Your task to perform on an android device: Open settings Image 0: 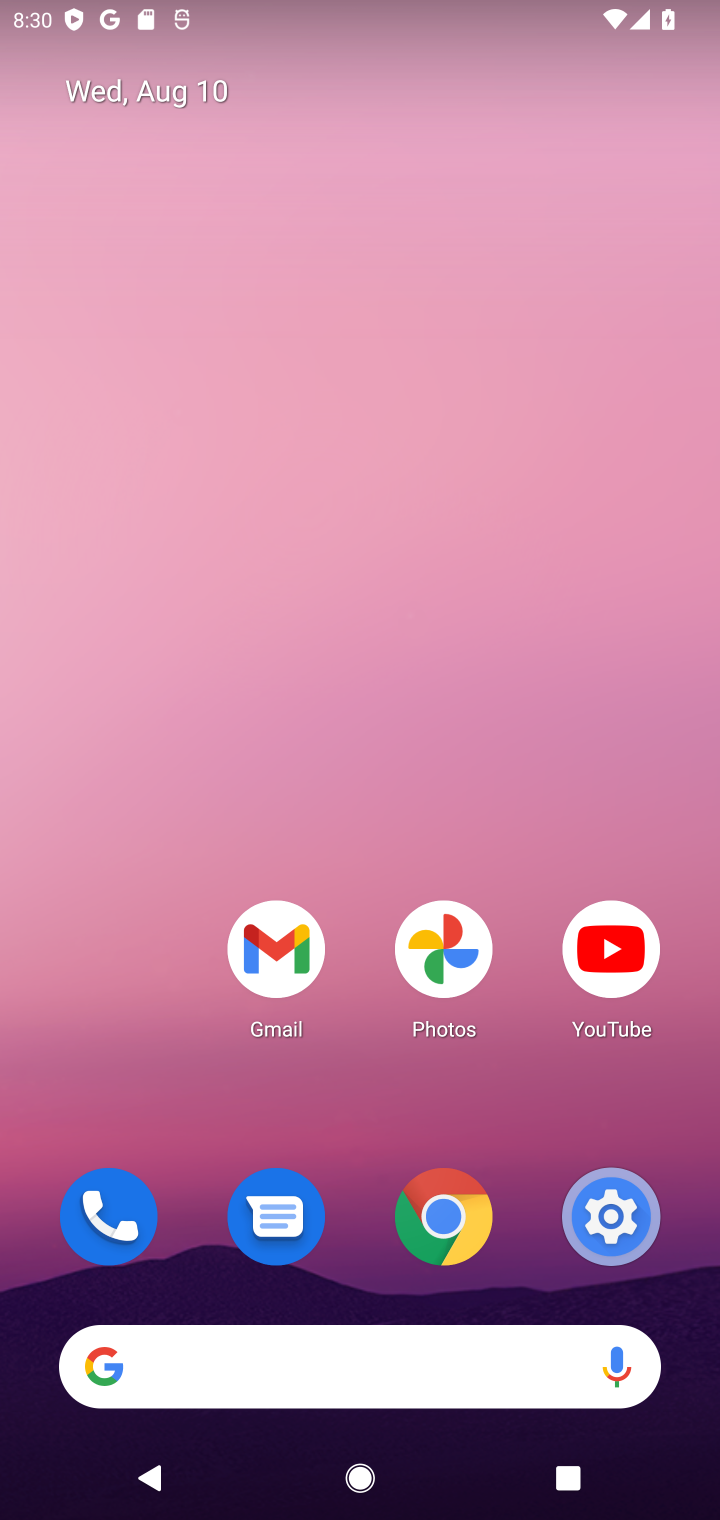
Step 0: click (576, 1229)
Your task to perform on an android device: Open settings Image 1: 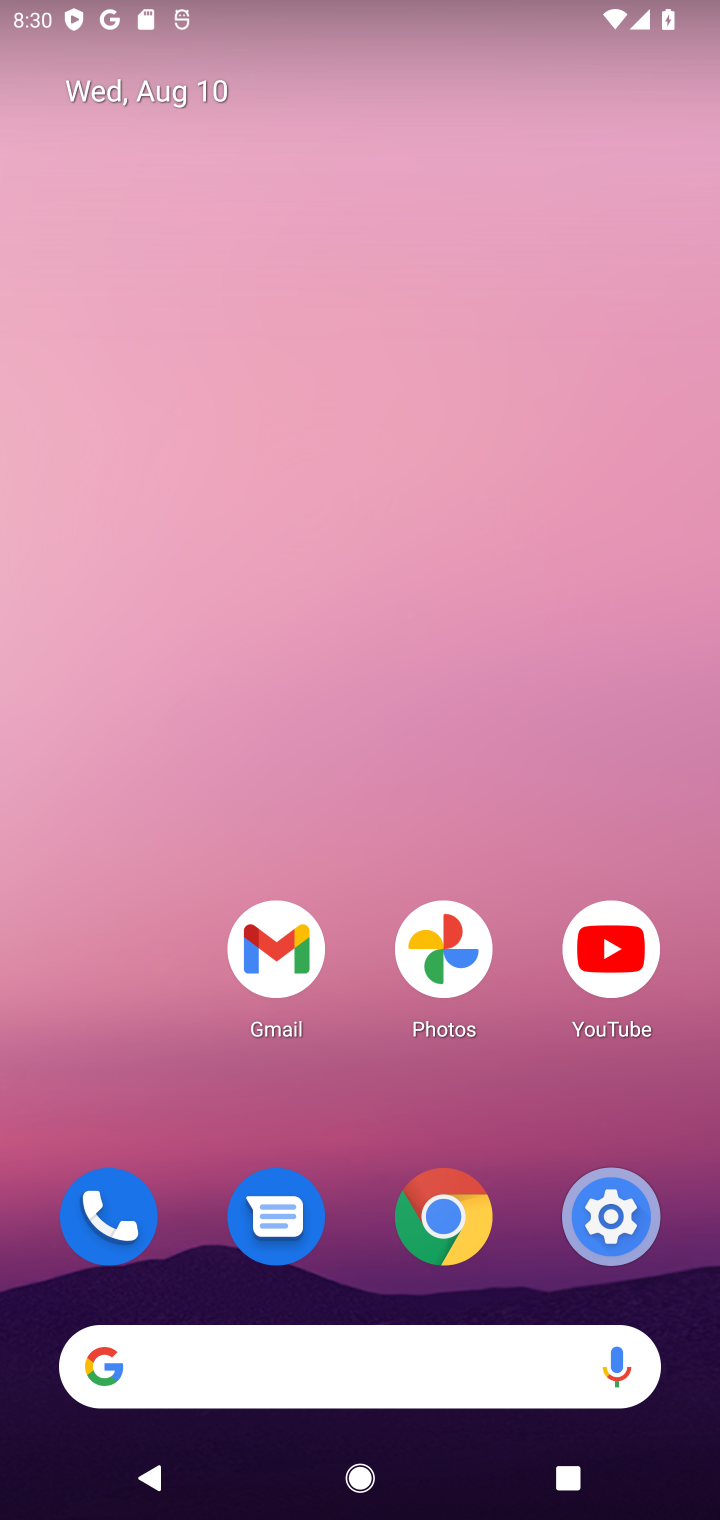
Step 1: click (599, 1210)
Your task to perform on an android device: Open settings Image 2: 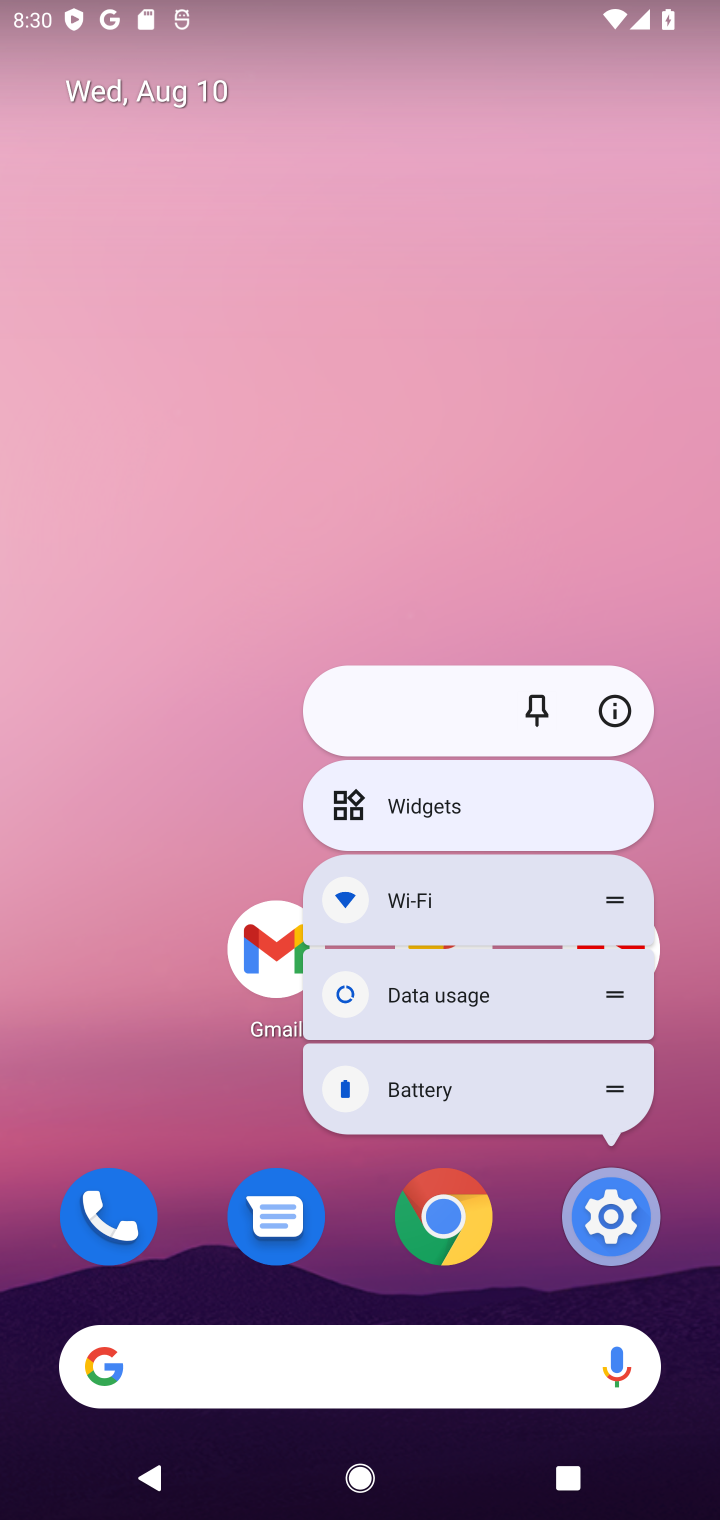
Step 2: click (600, 1200)
Your task to perform on an android device: Open settings Image 3: 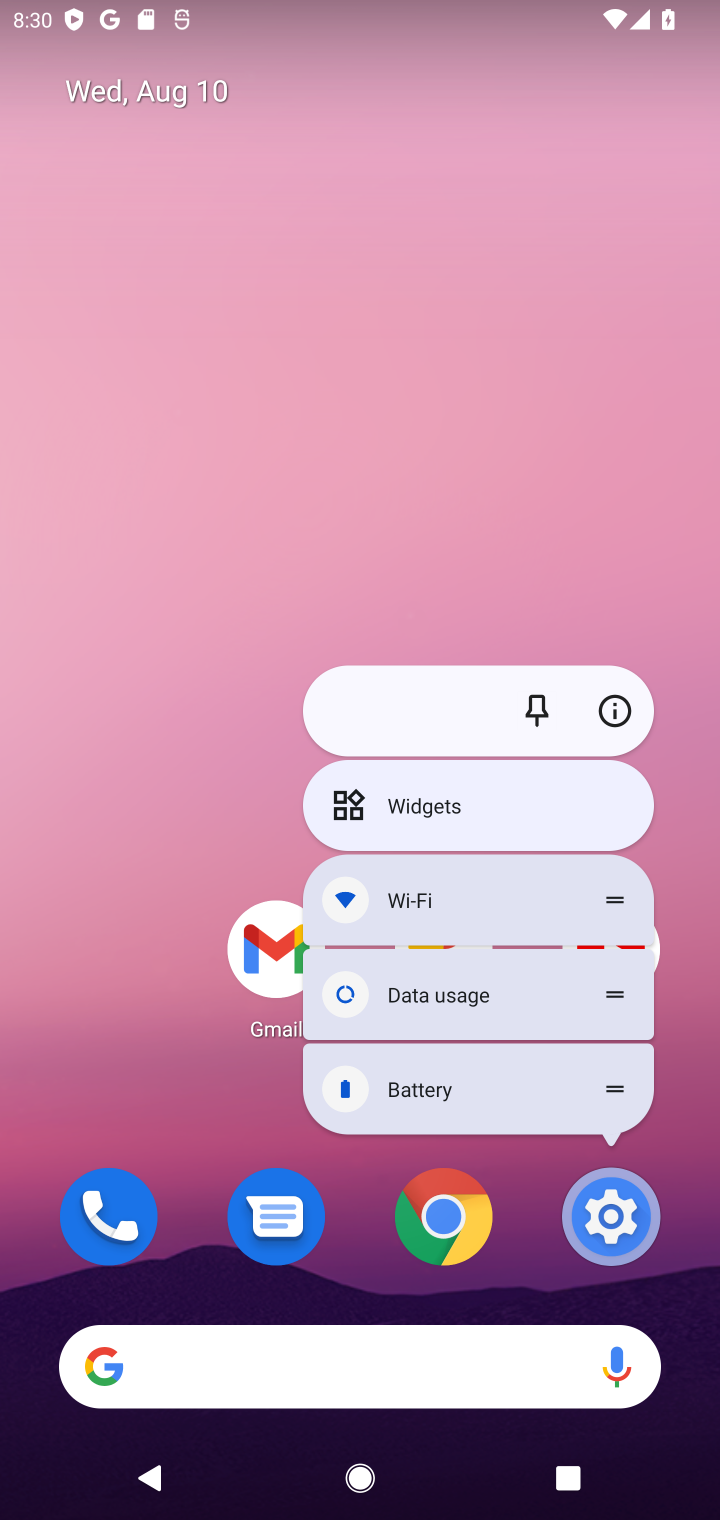
Step 3: click (600, 1196)
Your task to perform on an android device: Open settings Image 4: 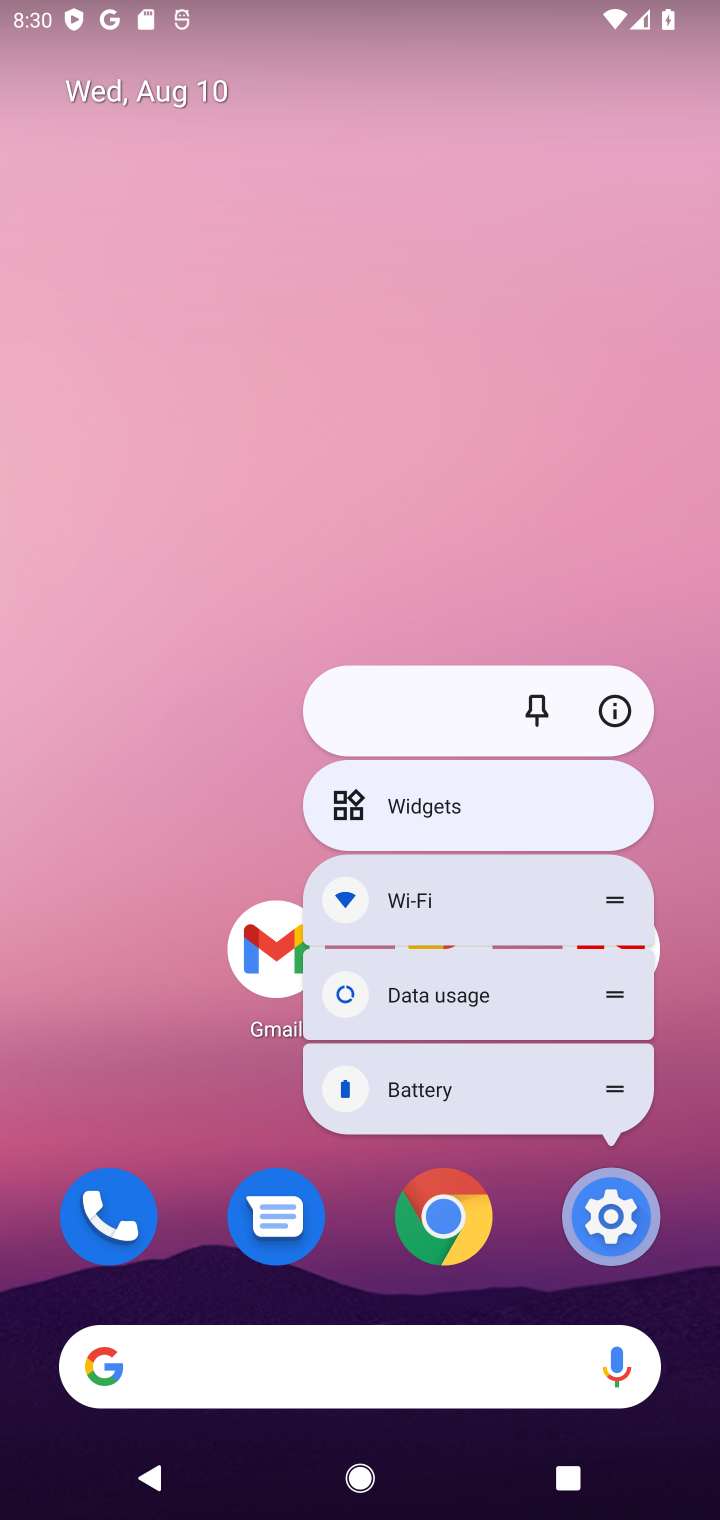
Step 4: click (579, 1247)
Your task to perform on an android device: Open settings Image 5: 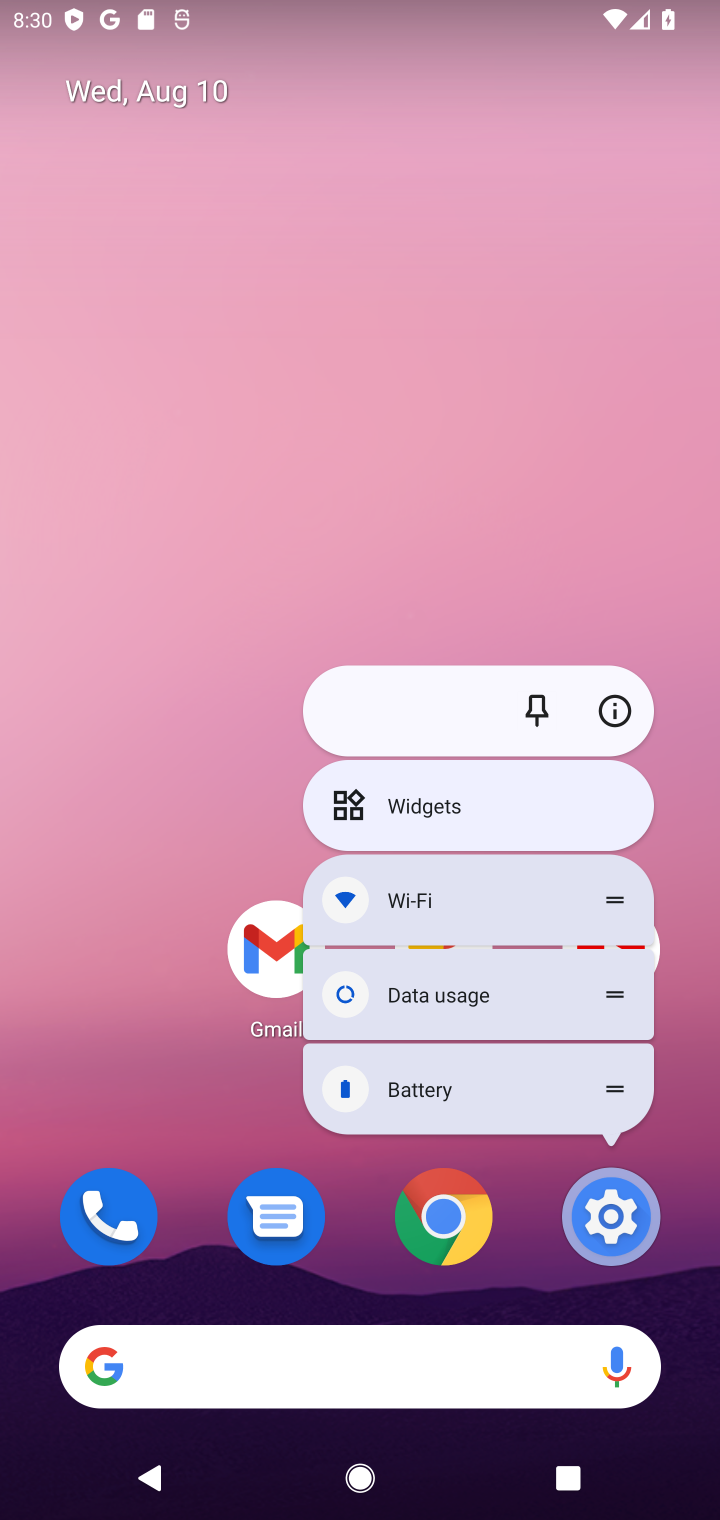
Step 5: drag from (155, 1230) to (655, 318)
Your task to perform on an android device: Open settings Image 6: 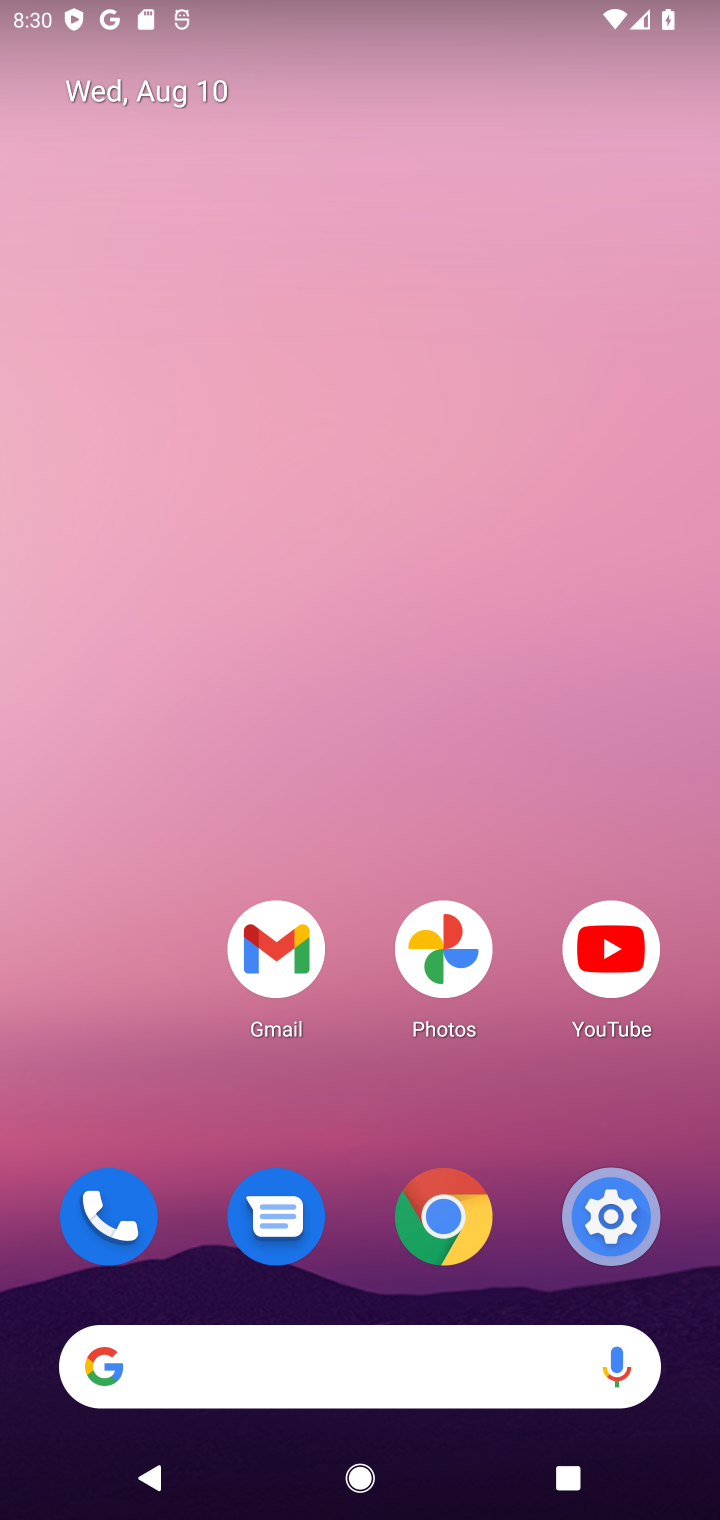
Step 6: drag from (175, 830) to (596, 57)
Your task to perform on an android device: Open settings Image 7: 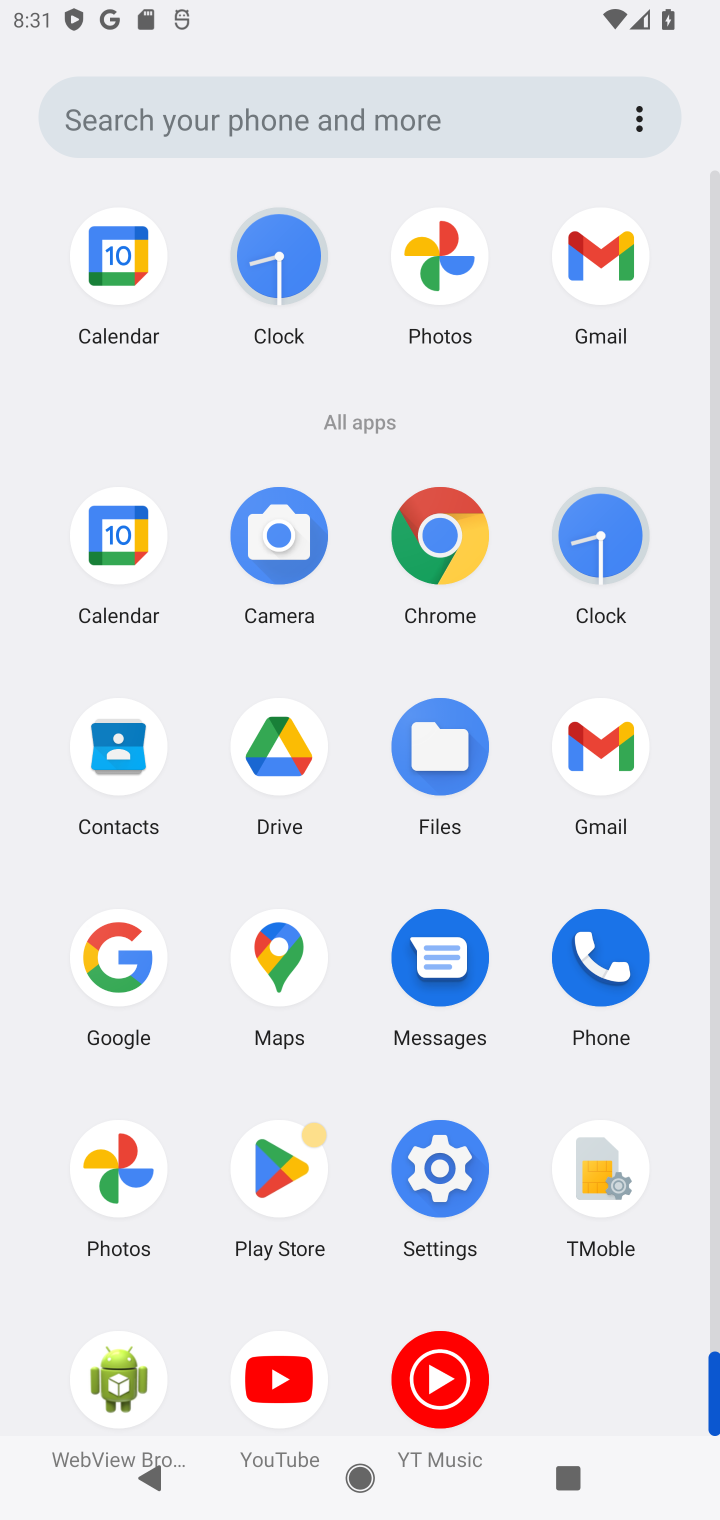
Step 7: click (430, 1150)
Your task to perform on an android device: Open settings Image 8: 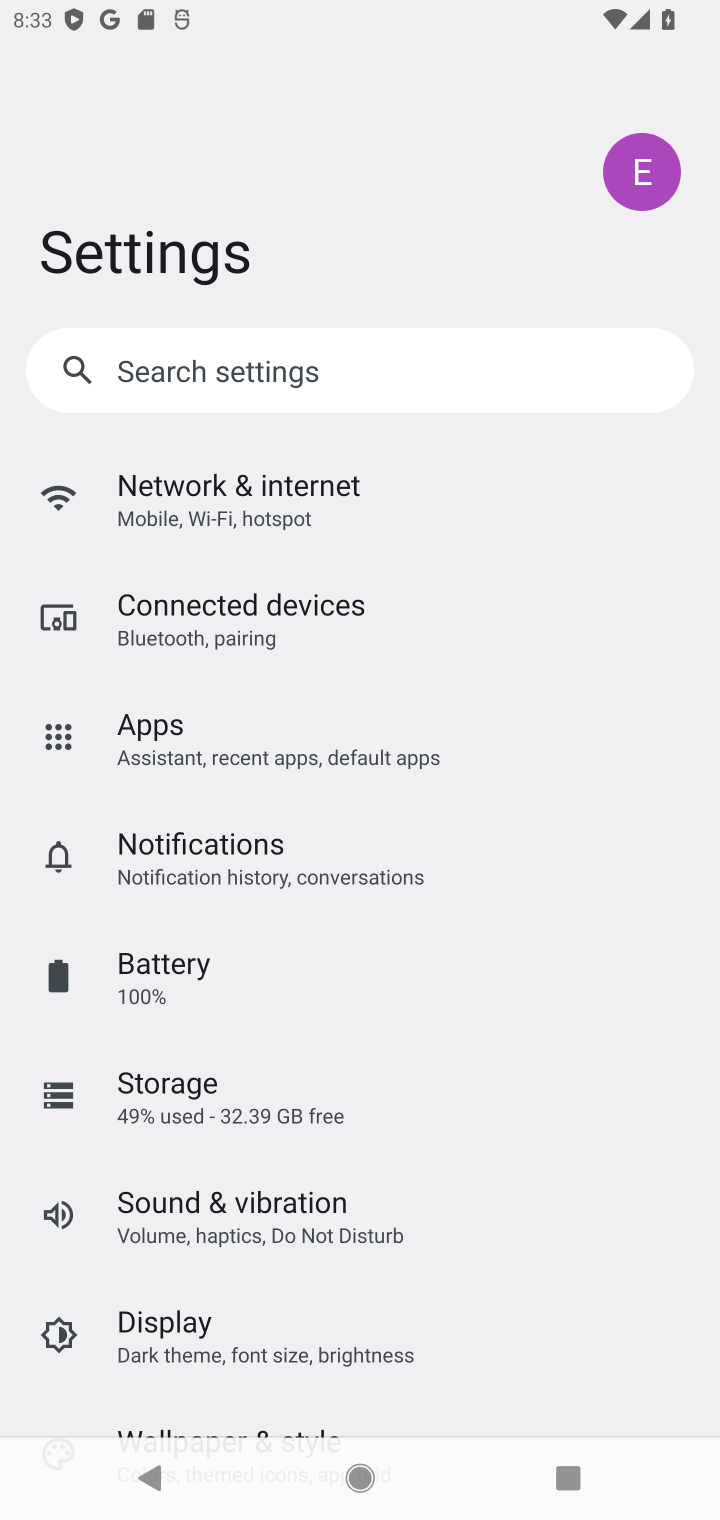
Step 8: task complete